Your task to perform on an android device: add a contact in the contacts app Image 0: 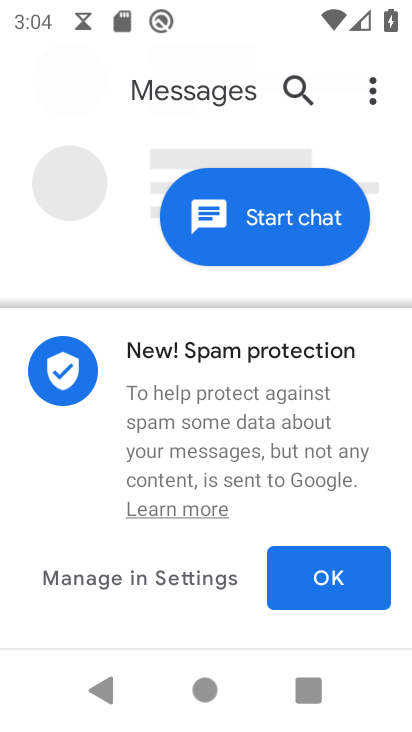
Step 0: press home button
Your task to perform on an android device: add a contact in the contacts app Image 1: 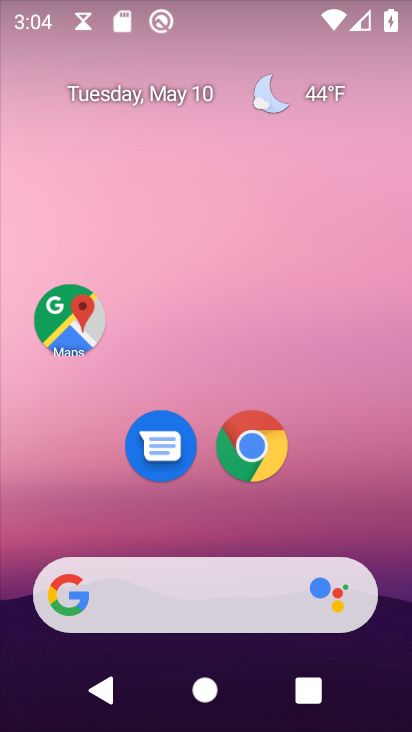
Step 1: drag from (361, 502) to (393, 74)
Your task to perform on an android device: add a contact in the contacts app Image 2: 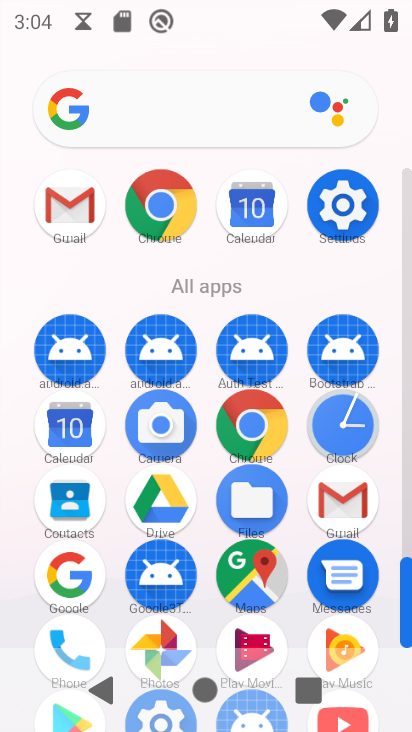
Step 2: drag from (402, 516) to (384, 272)
Your task to perform on an android device: add a contact in the contacts app Image 3: 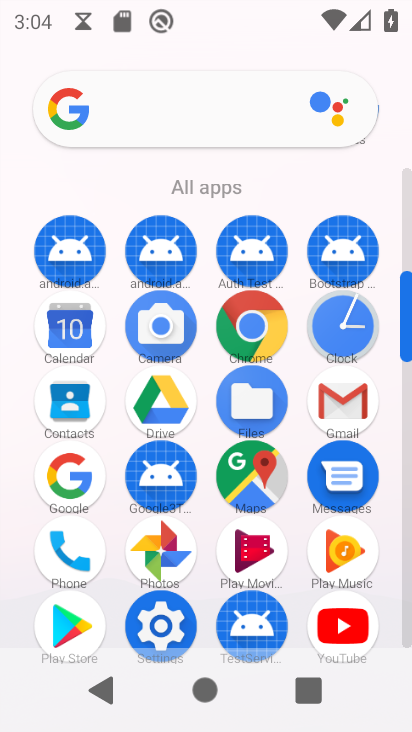
Step 3: click (76, 411)
Your task to perform on an android device: add a contact in the contacts app Image 4: 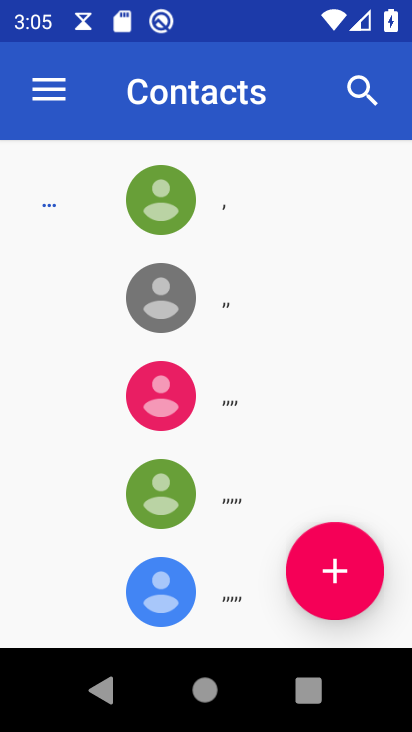
Step 4: click (343, 584)
Your task to perform on an android device: add a contact in the contacts app Image 5: 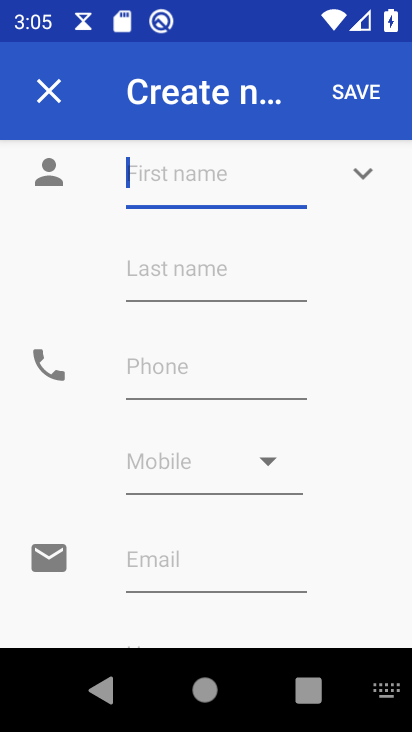
Step 5: type "teyye"
Your task to perform on an android device: add a contact in the contacts app Image 6: 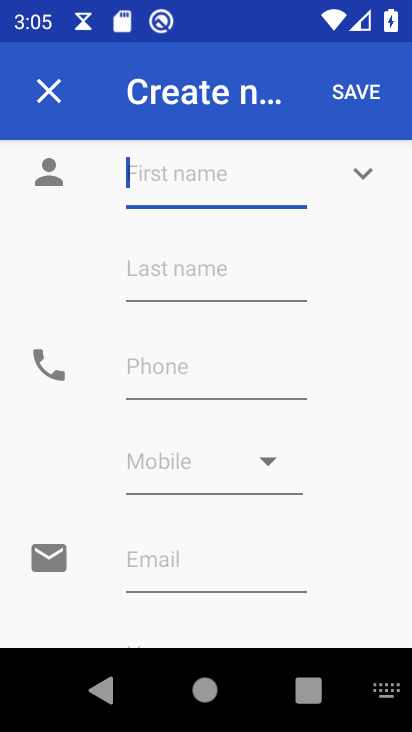
Step 6: click (185, 286)
Your task to perform on an android device: add a contact in the contacts app Image 7: 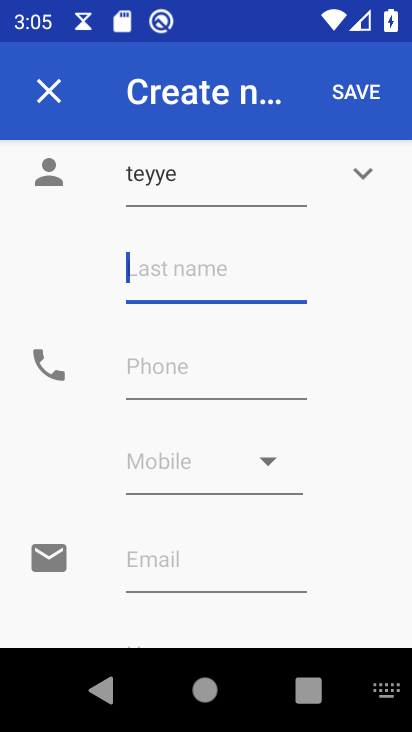
Step 7: click (144, 375)
Your task to perform on an android device: add a contact in the contacts app Image 8: 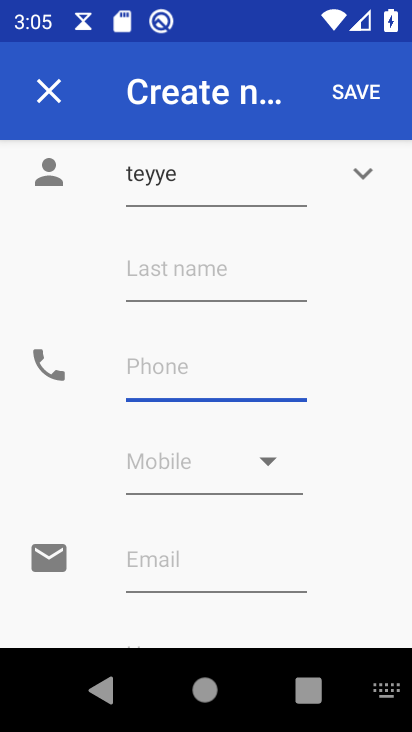
Step 8: type "6363636"
Your task to perform on an android device: add a contact in the contacts app Image 9: 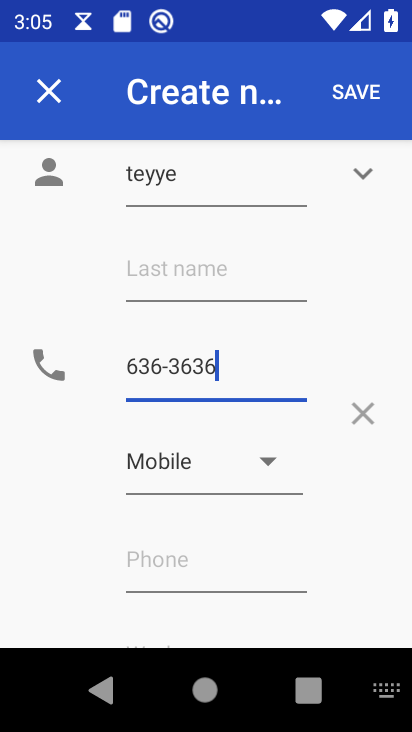
Step 9: click (355, 97)
Your task to perform on an android device: add a contact in the contacts app Image 10: 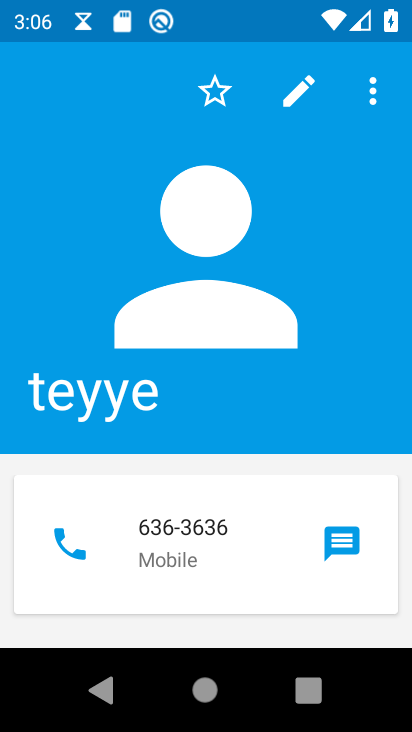
Step 10: task complete